Your task to perform on an android device: Open maps Image 0: 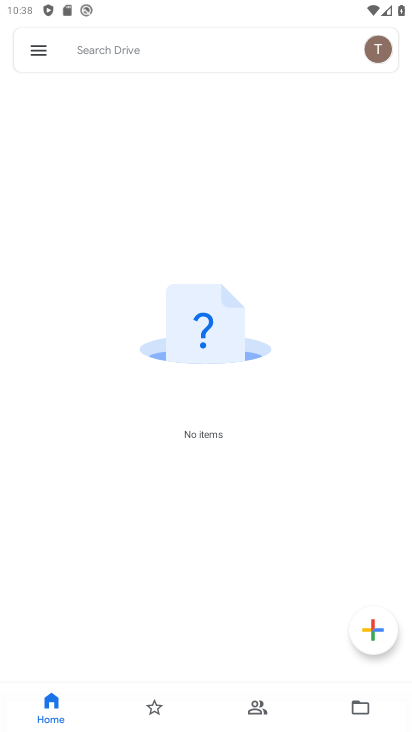
Step 0: press home button
Your task to perform on an android device: Open maps Image 1: 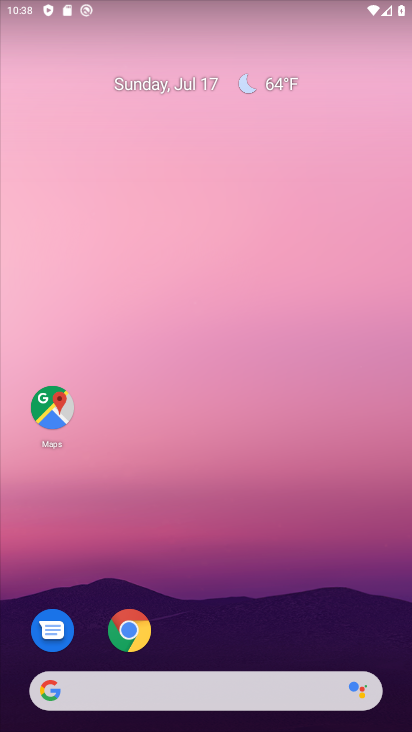
Step 1: click (52, 404)
Your task to perform on an android device: Open maps Image 2: 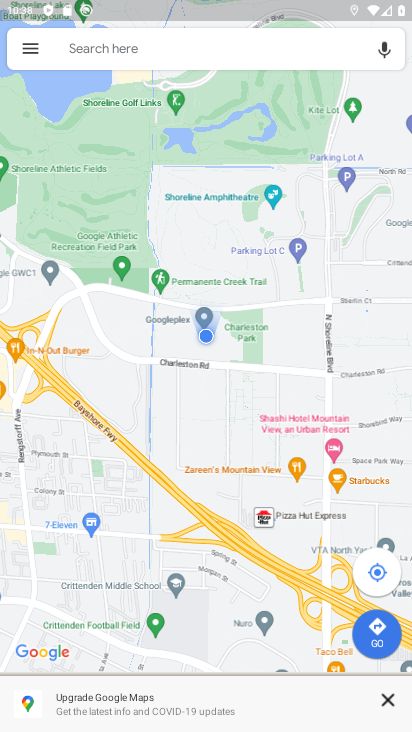
Step 2: task complete